Your task to perform on an android device: toggle show notifications on the lock screen Image 0: 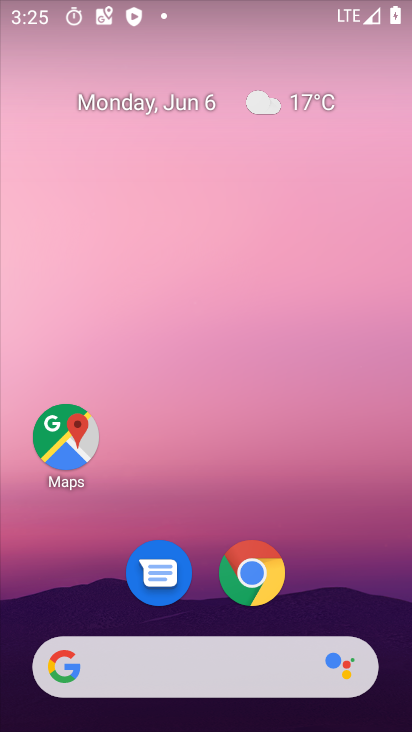
Step 0: drag from (365, 591) to (374, 230)
Your task to perform on an android device: toggle show notifications on the lock screen Image 1: 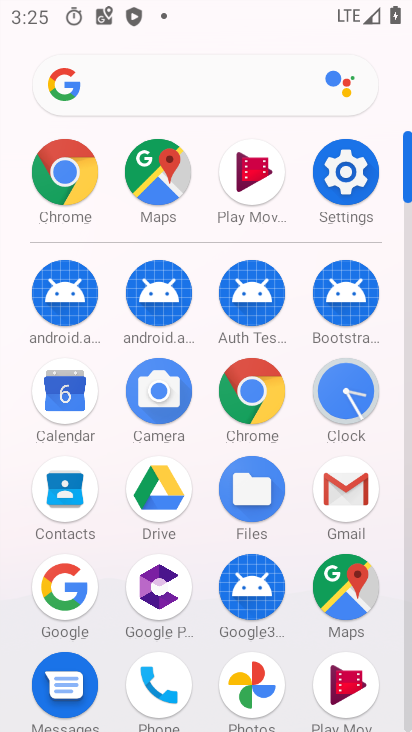
Step 1: click (351, 181)
Your task to perform on an android device: toggle show notifications on the lock screen Image 2: 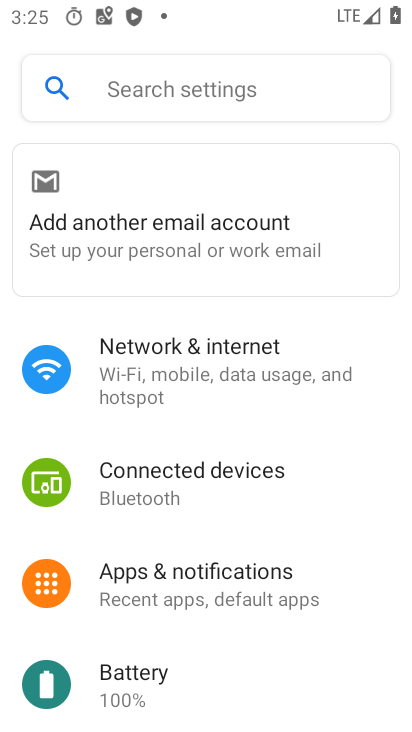
Step 2: drag from (351, 474) to (358, 396)
Your task to perform on an android device: toggle show notifications on the lock screen Image 3: 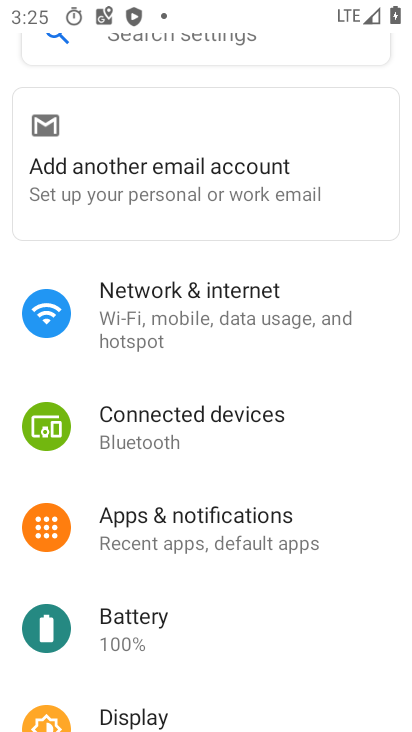
Step 3: drag from (347, 496) to (348, 396)
Your task to perform on an android device: toggle show notifications on the lock screen Image 4: 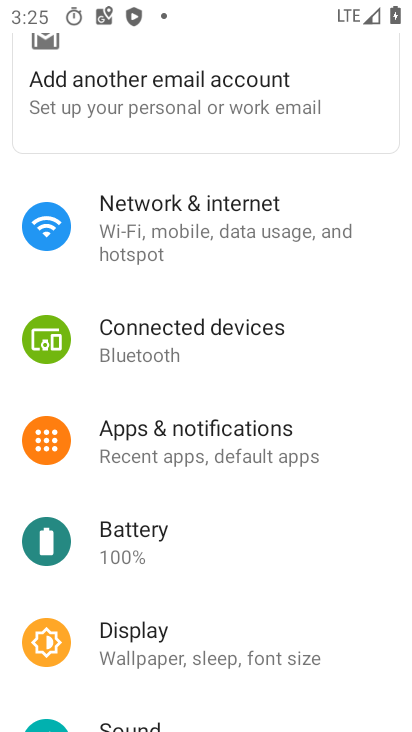
Step 4: drag from (353, 504) to (352, 391)
Your task to perform on an android device: toggle show notifications on the lock screen Image 5: 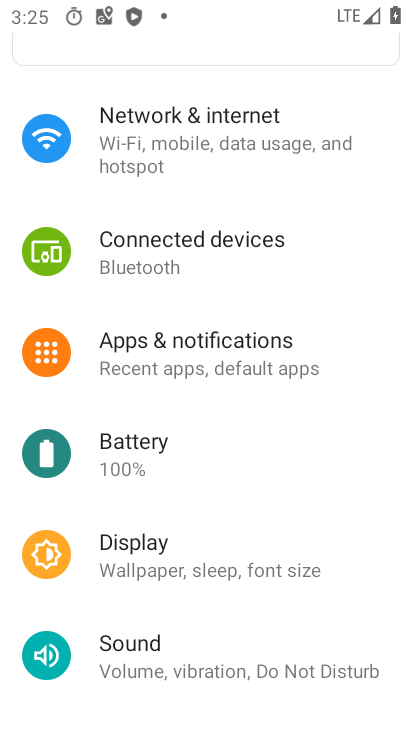
Step 5: click (298, 363)
Your task to perform on an android device: toggle show notifications on the lock screen Image 6: 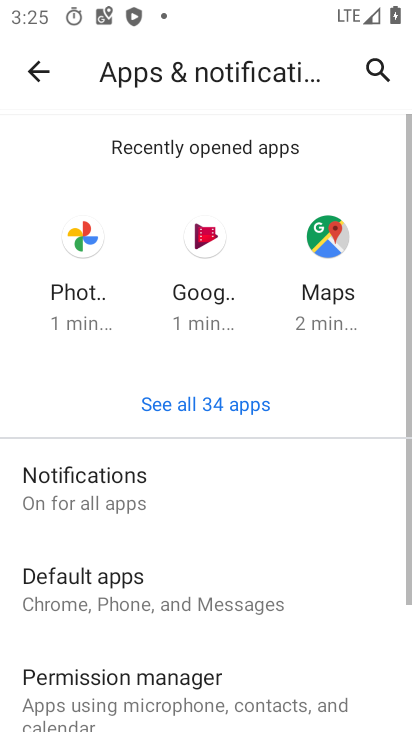
Step 6: drag from (306, 518) to (314, 435)
Your task to perform on an android device: toggle show notifications on the lock screen Image 7: 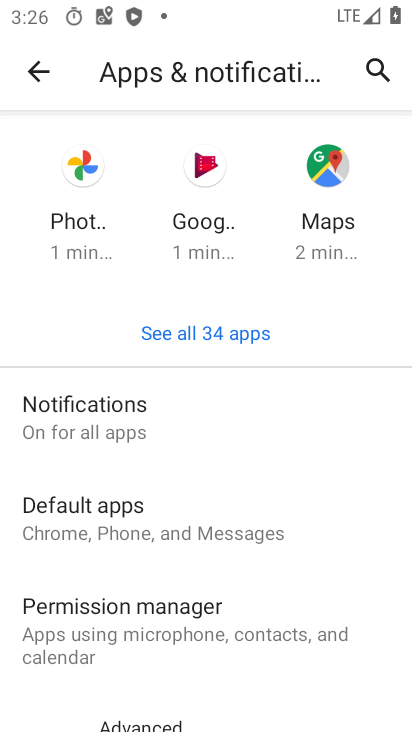
Step 7: drag from (306, 536) to (312, 362)
Your task to perform on an android device: toggle show notifications on the lock screen Image 8: 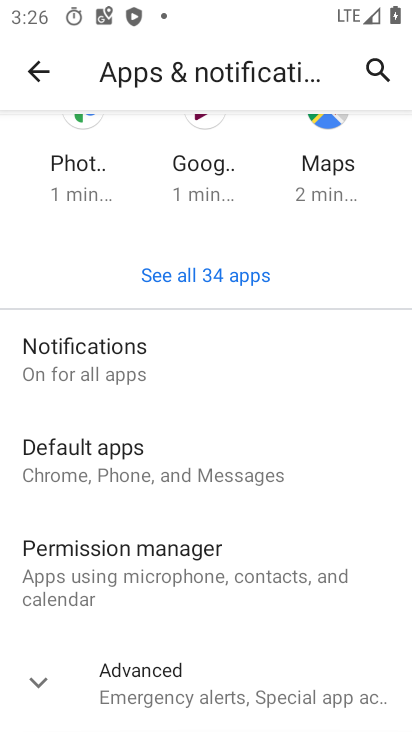
Step 8: click (126, 342)
Your task to perform on an android device: toggle show notifications on the lock screen Image 9: 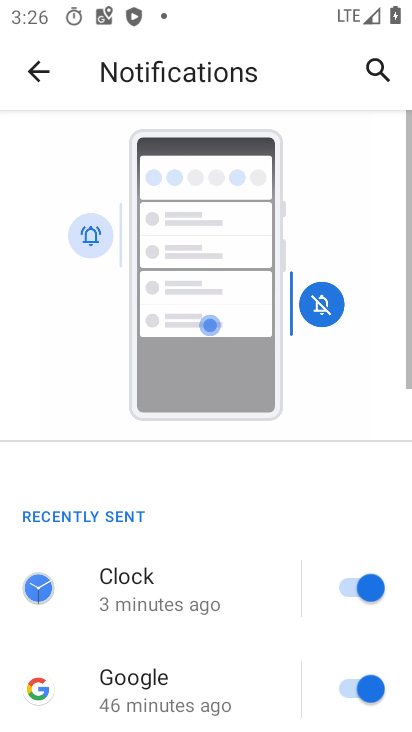
Step 9: drag from (249, 489) to (249, 451)
Your task to perform on an android device: toggle show notifications on the lock screen Image 10: 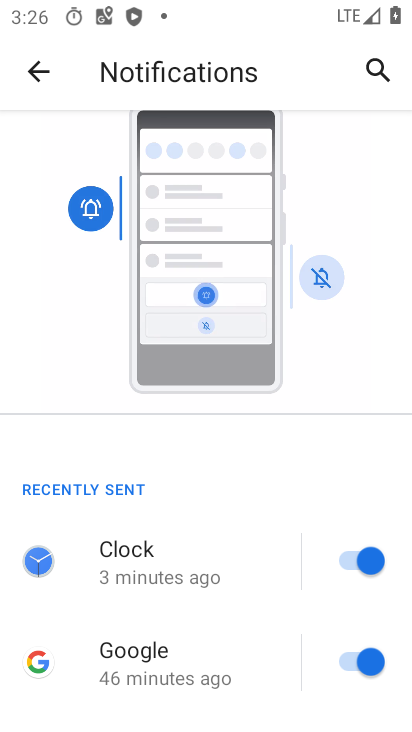
Step 10: drag from (245, 591) to (255, 440)
Your task to perform on an android device: toggle show notifications on the lock screen Image 11: 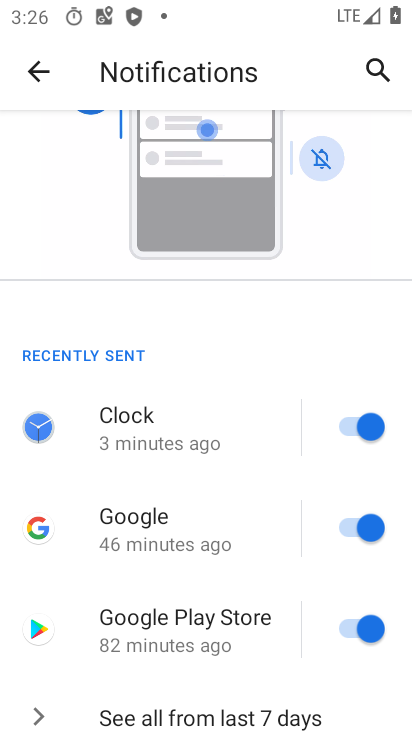
Step 11: drag from (270, 567) to (273, 422)
Your task to perform on an android device: toggle show notifications on the lock screen Image 12: 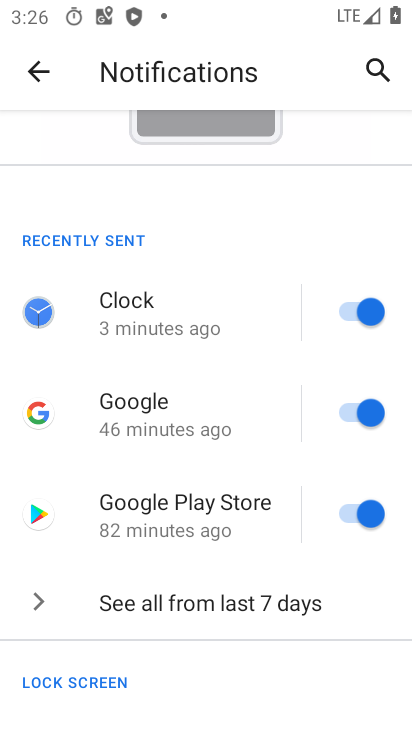
Step 12: drag from (258, 628) to (266, 492)
Your task to perform on an android device: toggle show notifications on the lock screen Image 13: 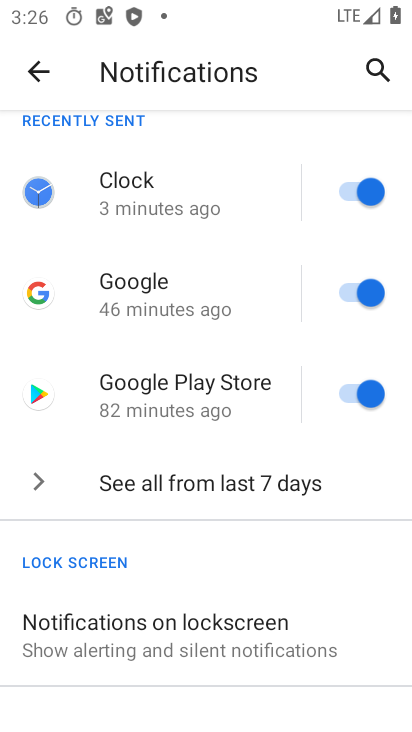
Step 13: drag from (265, 636) to (280, 460)
Your task to perform on an android device: toggle show notifications on the lock screen Image 14: 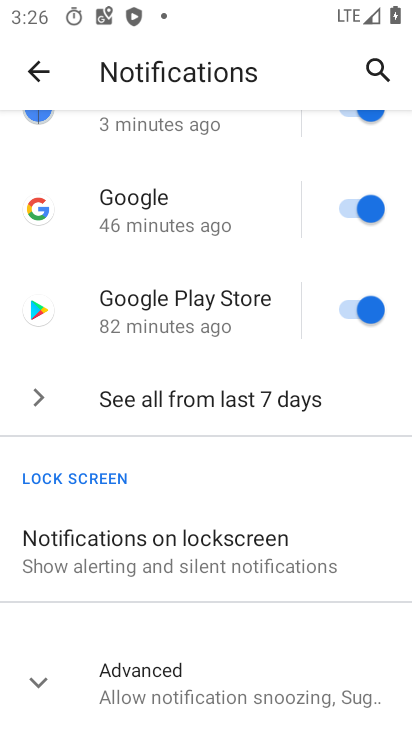
Step 14: click (238, 549)
Your task to perform on an android device: toggle show notifications on the lock screen Image 15: 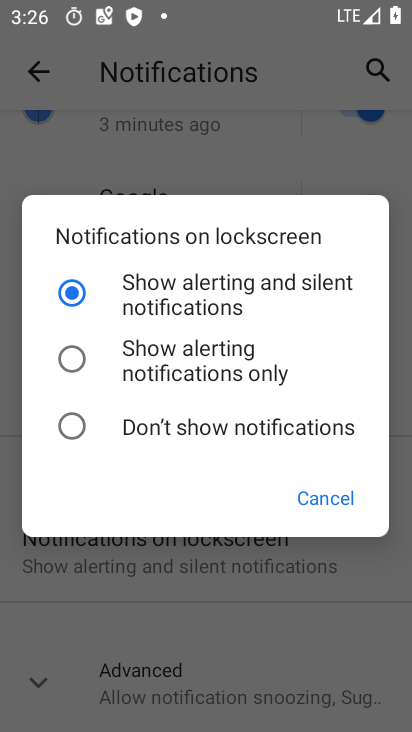
Step 15: click (107, 368)
Your task to perform on an android device: toggle show notifications on the lock screen Image 16: 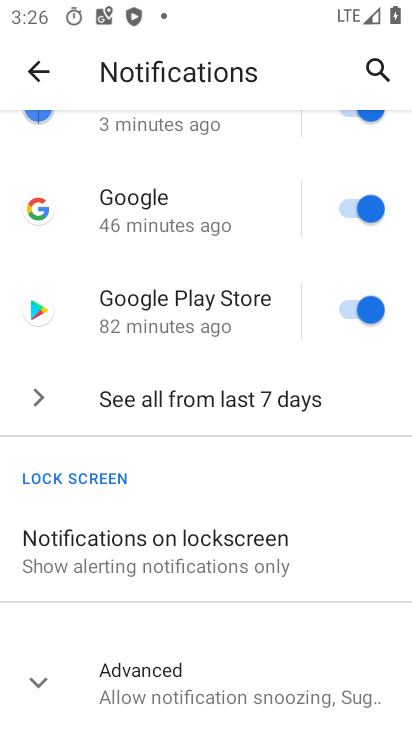
Step 16: task complete